Your task to perform on an android device: install app "Reddit" Image 0: 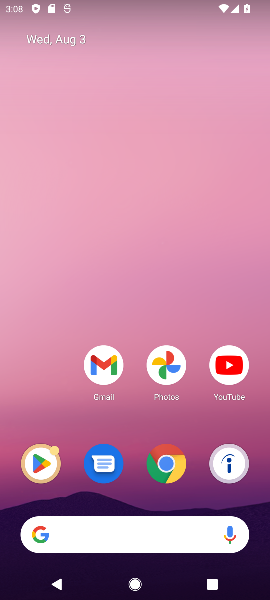
Step 0: drag from (140, 461) to (95, 117)
Your task to perform on an android device: install app "Reddit" Image 1: 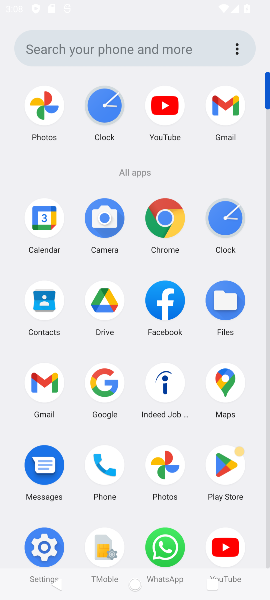
Step 1: drag from (92, 426) to (115, 71)
Your task to perform on an android device: install app "Reddit" Image 2: 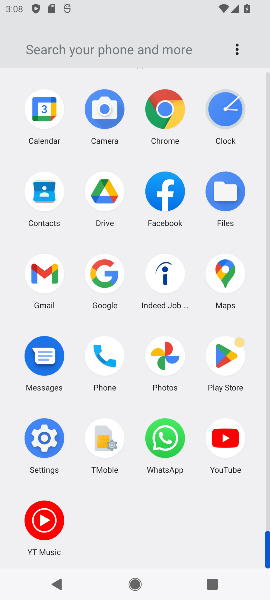
Step 2: click (220, 362)
Your task to perform on an android device: install app "Reddit" Image 3: 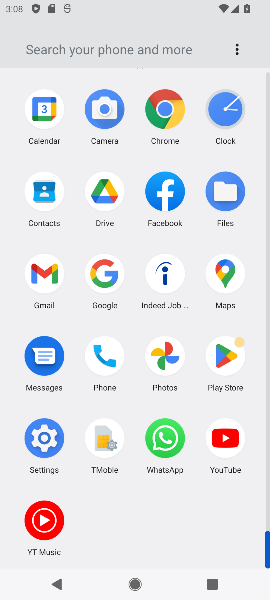
Step 3: click (220, 362)
Your task to perform on an android device: install app "Reddit" Image 4: 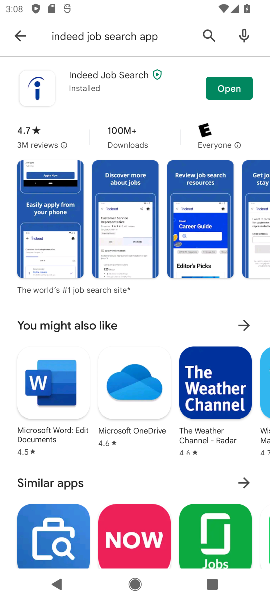
Step 4: click (221, 356)
Your task to perform on an android device: install app "Reddit" Image 5: 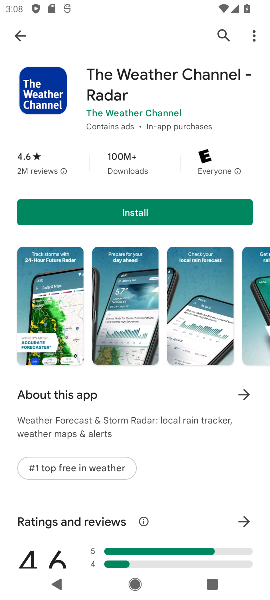
Step 5: click (13, 38)
Your task to perform on an android device: install app "Reddit" Image 6: 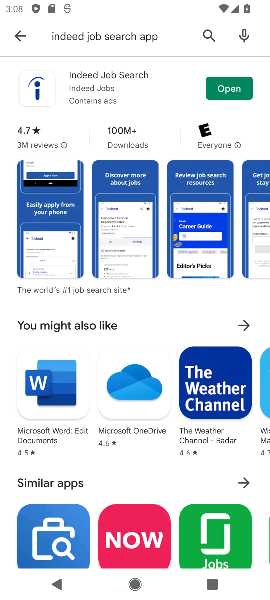
Step 6: click (206, 33)
Your task to perform on an android device: install app "Reddit" Image 7: 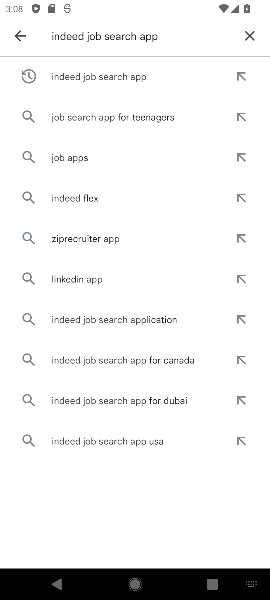
Step 7: click (247, 36)
Your task to perform on an android device: install app "Reddit" Image 8: 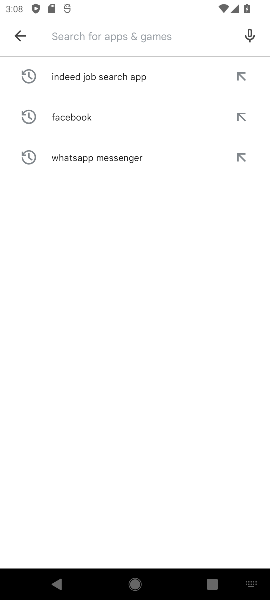
Step 8: type "Reddit"
Your task to perform on an android device: install app "Reddit" Image 9: 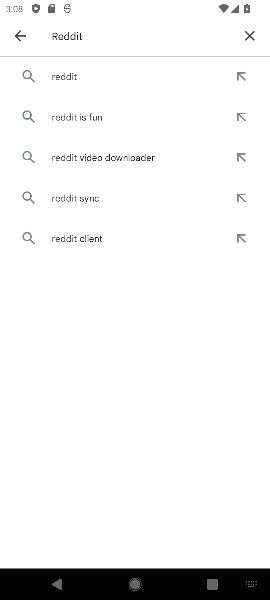
Step 9: click (81, 83)
Your task to perform on an android device: install app "Reddit" Image 10: 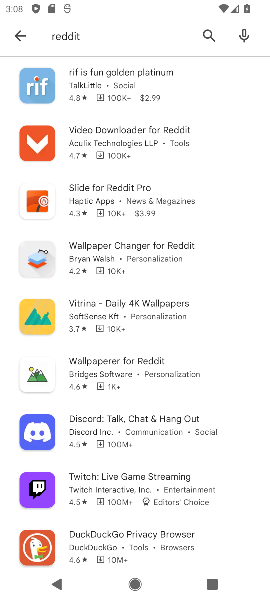
Step 10: task complete